Your task to perform on an android device: delete a single message in the gmail app Image 0: 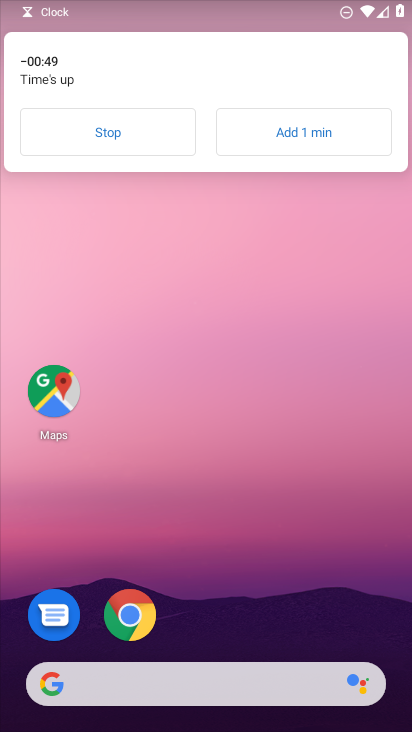
Step 0: click (128, 118)
Your task to perform on an android device: delete a single message in the gmail app Image 1: 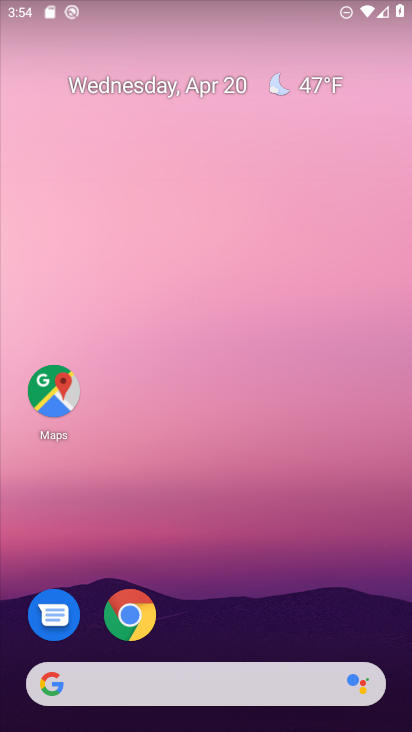
Step 1: drag from (267, 548) to (257, 89)
Your task to perform on an android device: delete a single message in the gmail app Image 2: 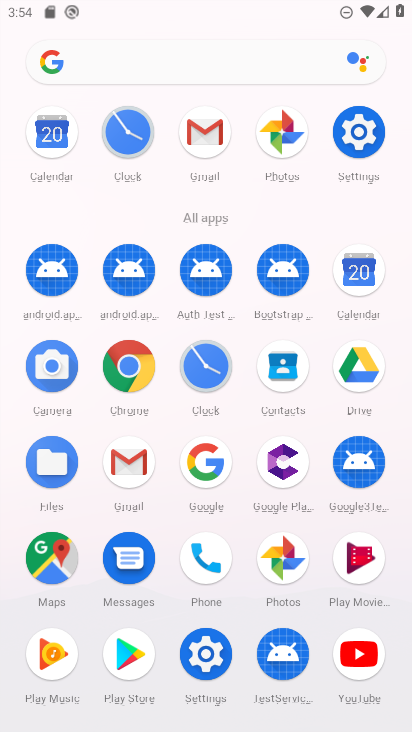
Step 2: click (202, 143)
Your task to perform on an android device: delete a single message in the gmail app Image 3: 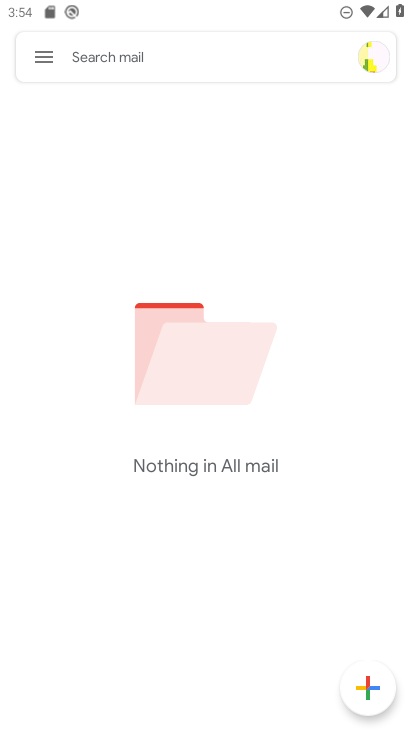
Step 3: task complete